Your task to perform on an android device: See recent photos Image 0: 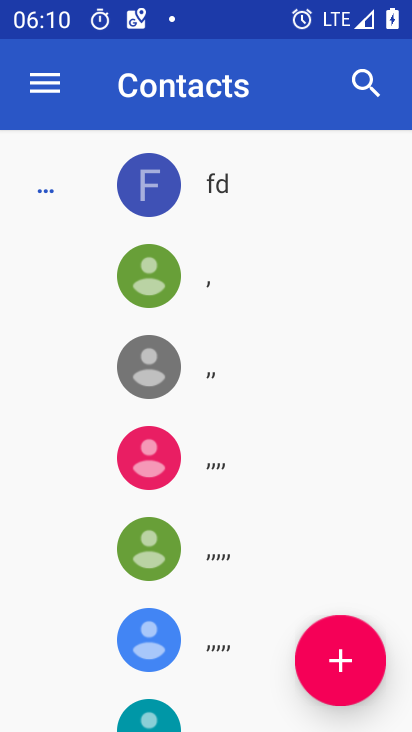
Step 0: drag from (202, 614) to (238, 381)
Your task to perform on an android device: See recent photos Image 1: 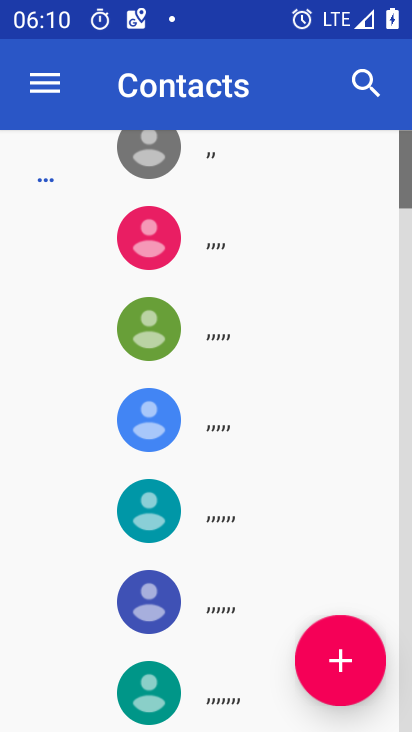
Step 1: press home button
Your task to perform on an android device: See recent photos Image 2: 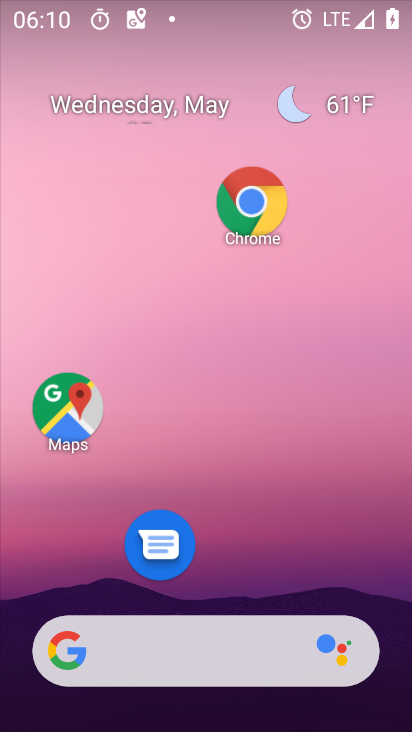
Step 2: drag from (249, 394) to (244, 223)
Your task to perform on an android device: See recent photos Image 3: 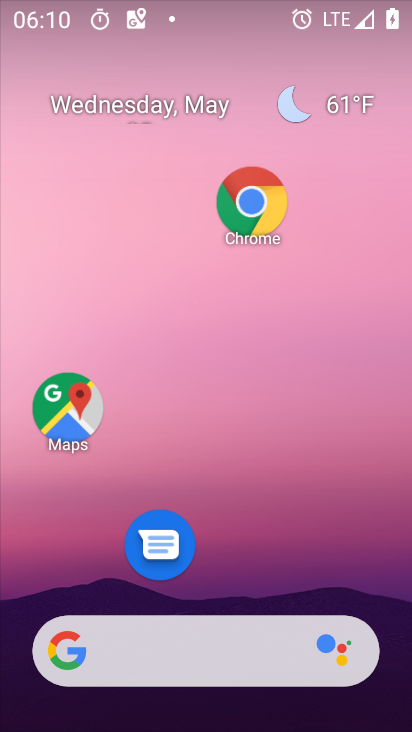
Step 3: drag from (231, 625) to (257, 50)
Your task to perform on an android device: See recent photos Image 4: 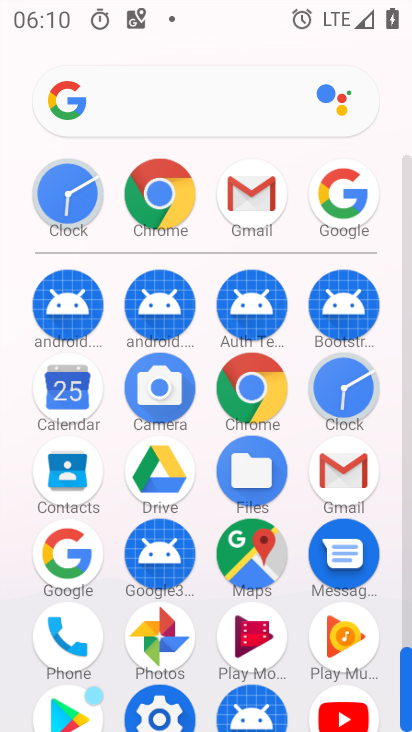
Step 4: click (155, 630)
Your task to perform on an android device: See recent photos Image 5: 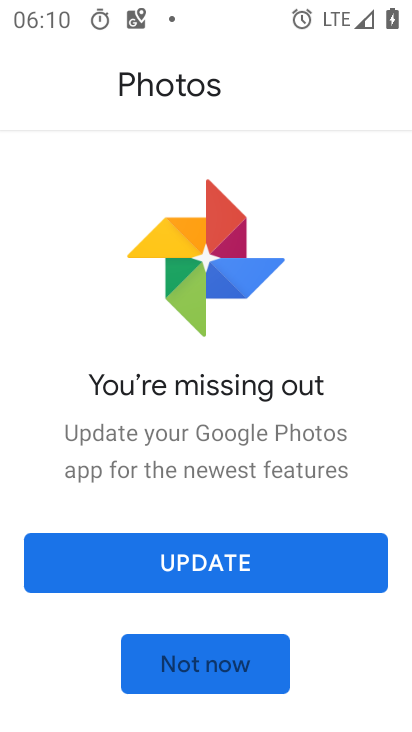
Step 5: click (193, 563)
Your task to perform on an android device: See recent photos Image 6: 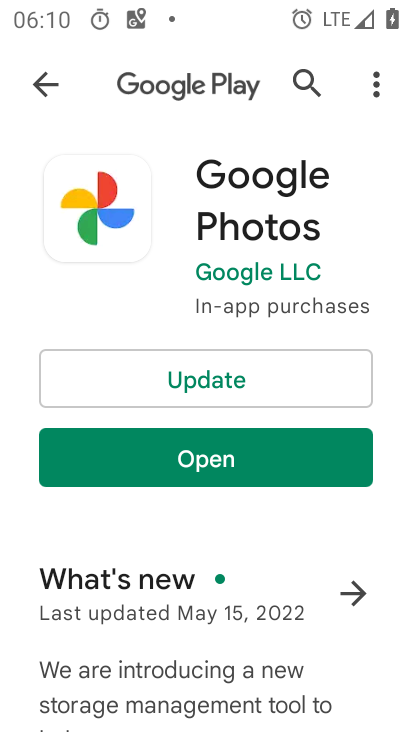
Step 6: click (224, 376)
Your task to perform on an android device: See recent photos Image 7: 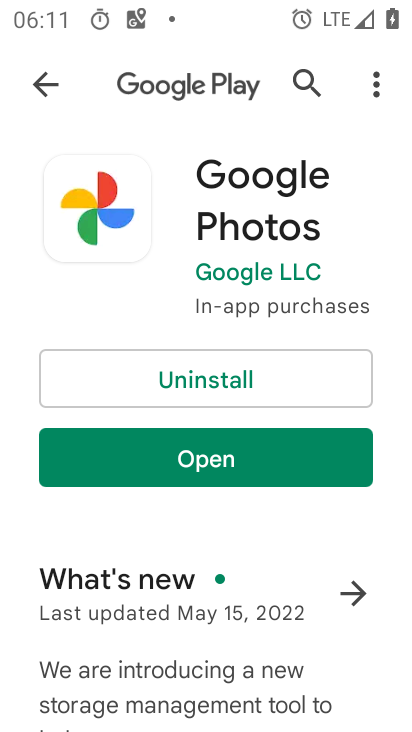
Step 7: drag from (257, 685) to (282, 337)
Your task to perform on an android device: See recent photos Image 8: 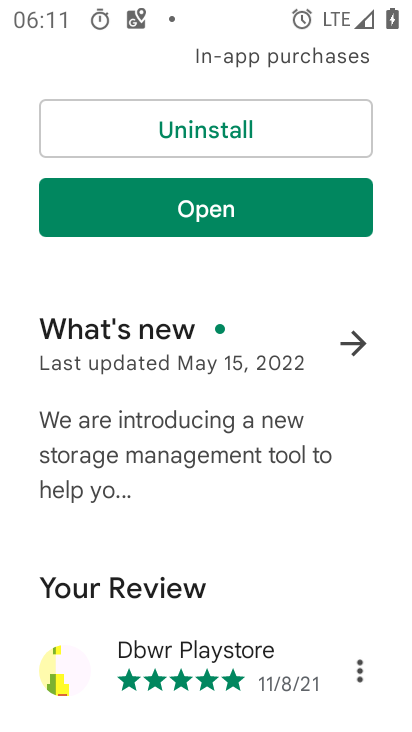
Step 8: click (206, 213)
Your task to perform on an android device: See recent photos Image 9: 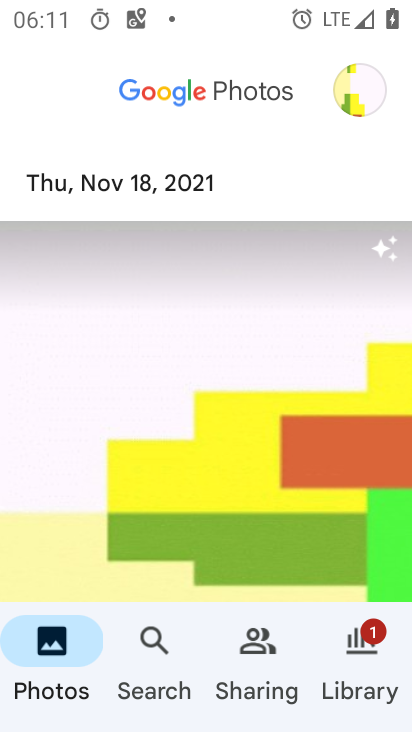
Step 9: task complete